Your task to perform on an android device: open app "PlayWell" Image 0: 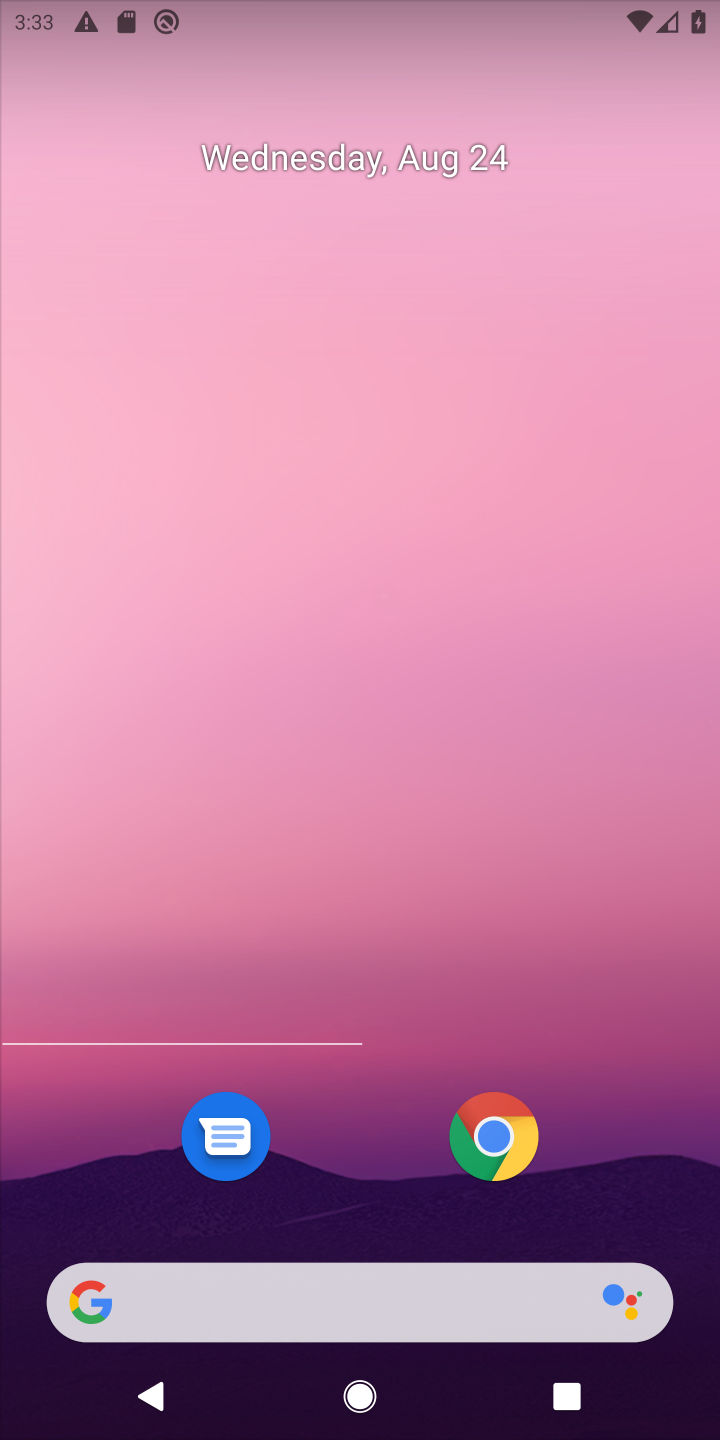
Step 0: press home button
Your task to perform on an android device: open app "PlayWell" Image 1: 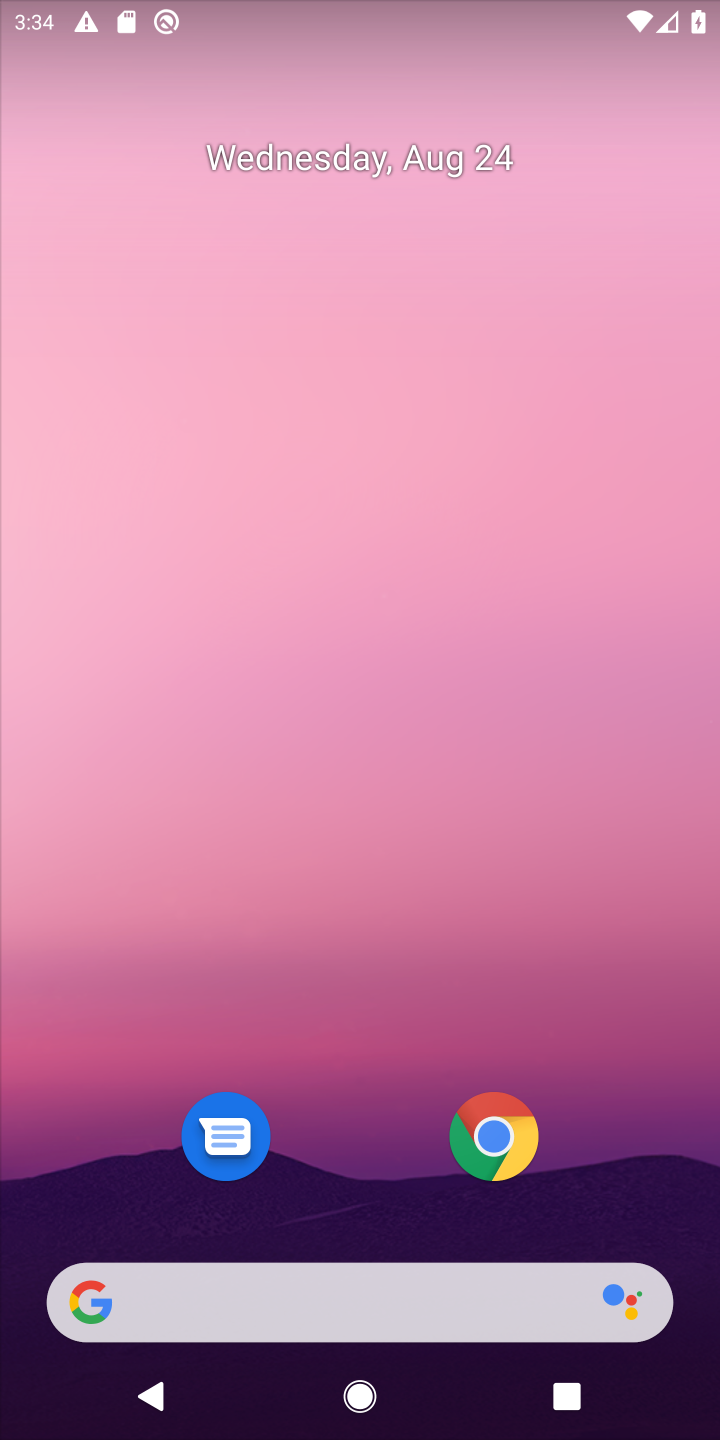
Step 1: drag from (338, 1191) to (313, 298)
Your task to perform on an android device: open app "PlayWell" Image 2: 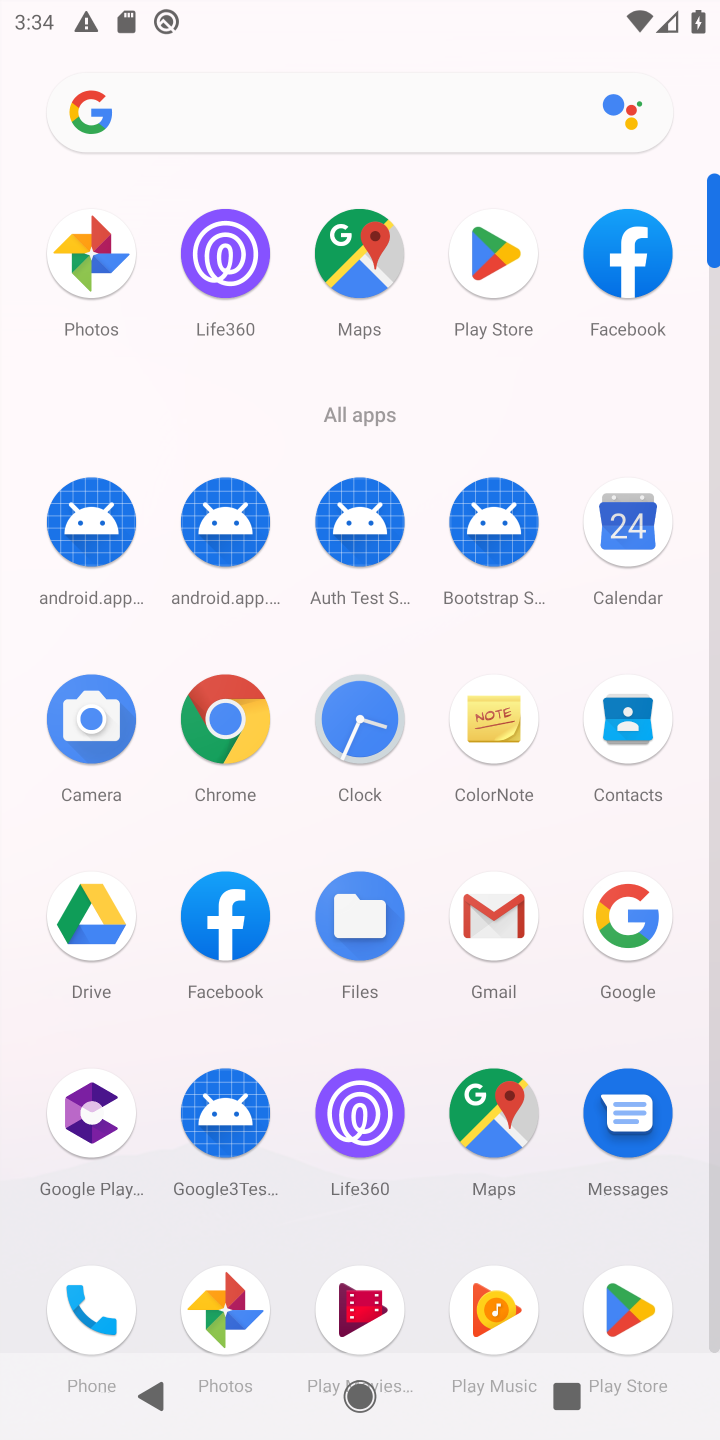
Step 2: click (481, 255)
Your task to perform on an android device: open app "PlayWell" Image 3: 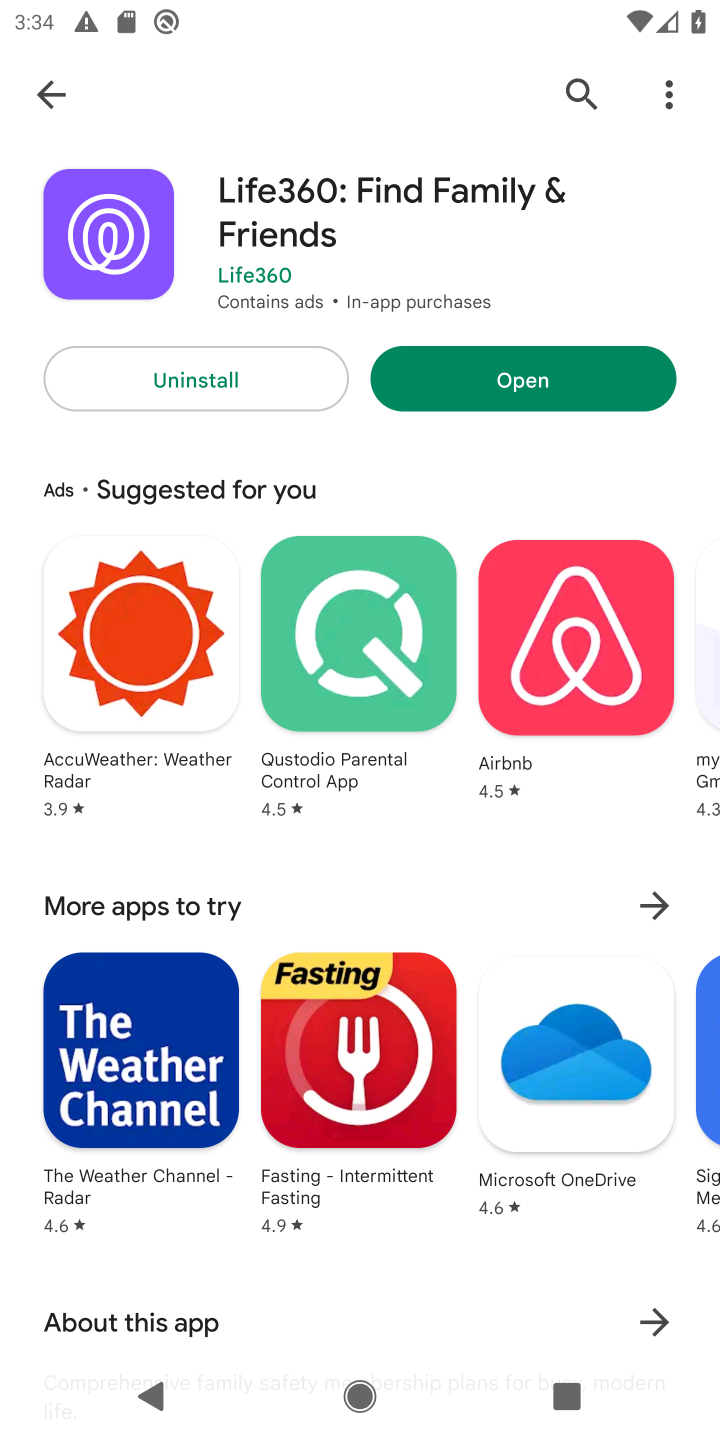
Step 3: click (59, 89)
Your task to perform on an android device: open app "PlayWell" Image 4: 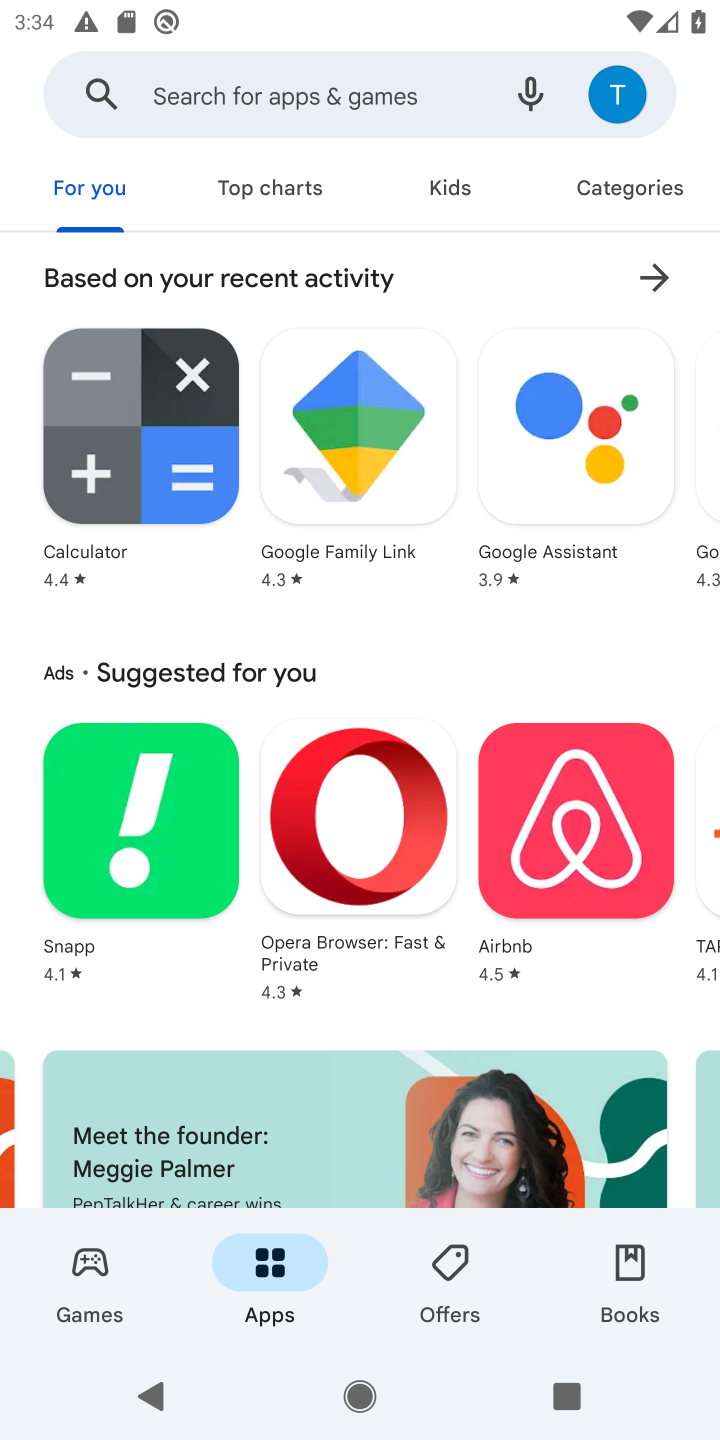
Step 4: click (336, 100)
Your task to perform on an android device: open app "PlayWell" Image 5: 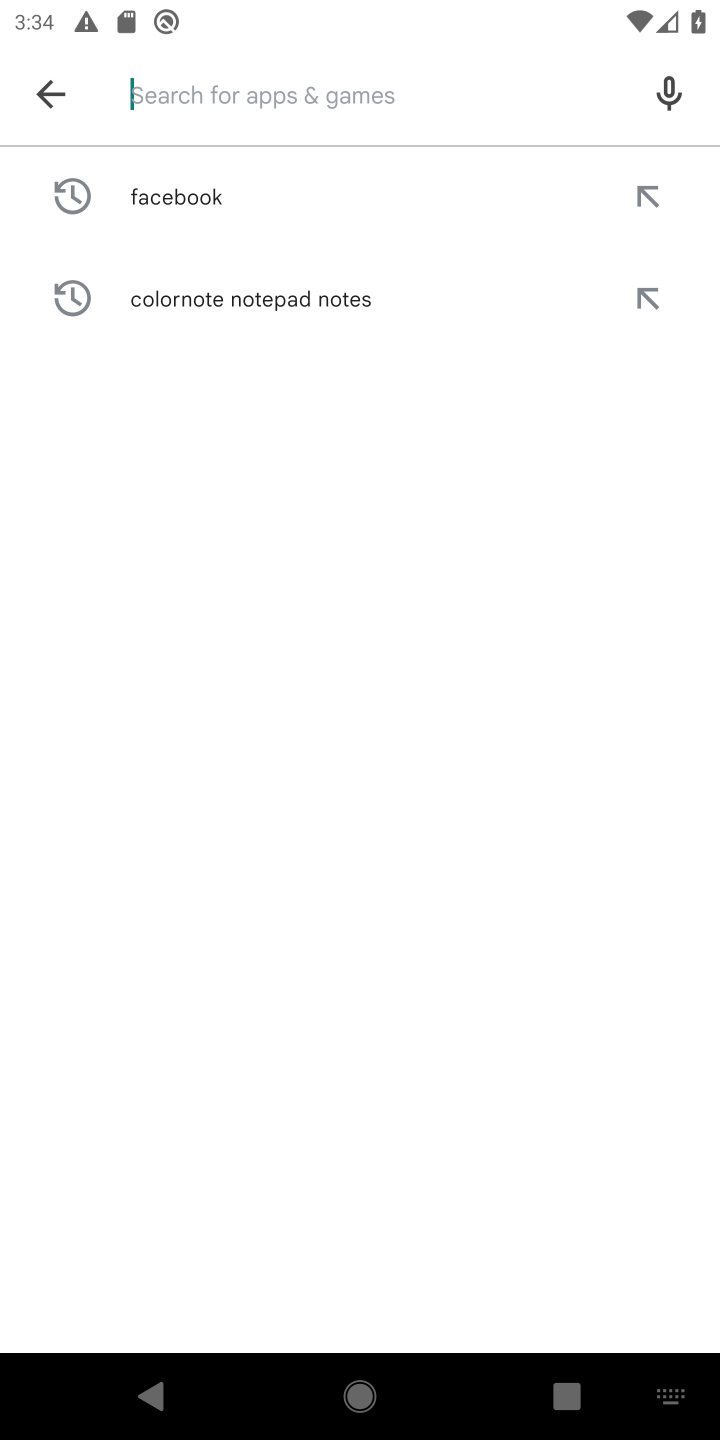
Step 5: type "PlayWell"
Your task to perform on an android device: open app "PlayWell" Image 6: 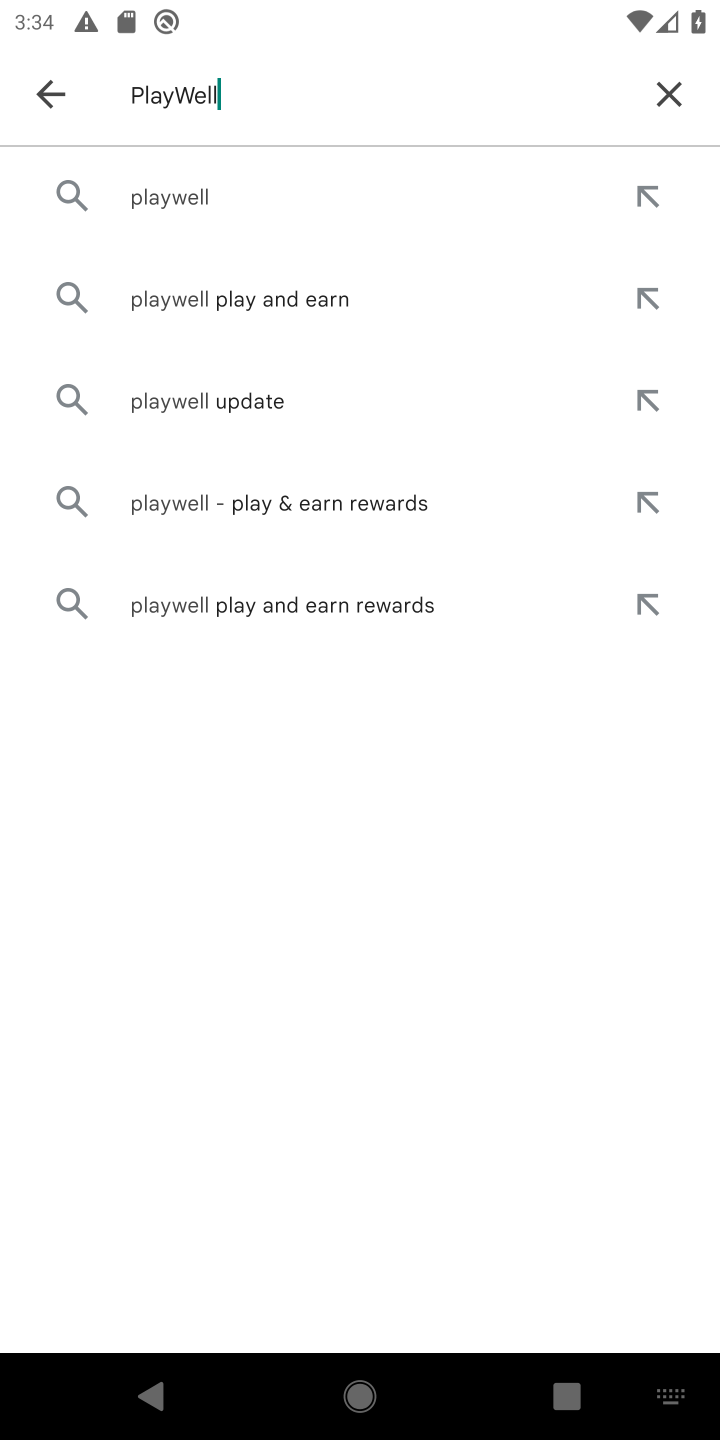
Step 6: click (175, 203)
Your task to perform on an android device: open app "PlayWell" Image 7: 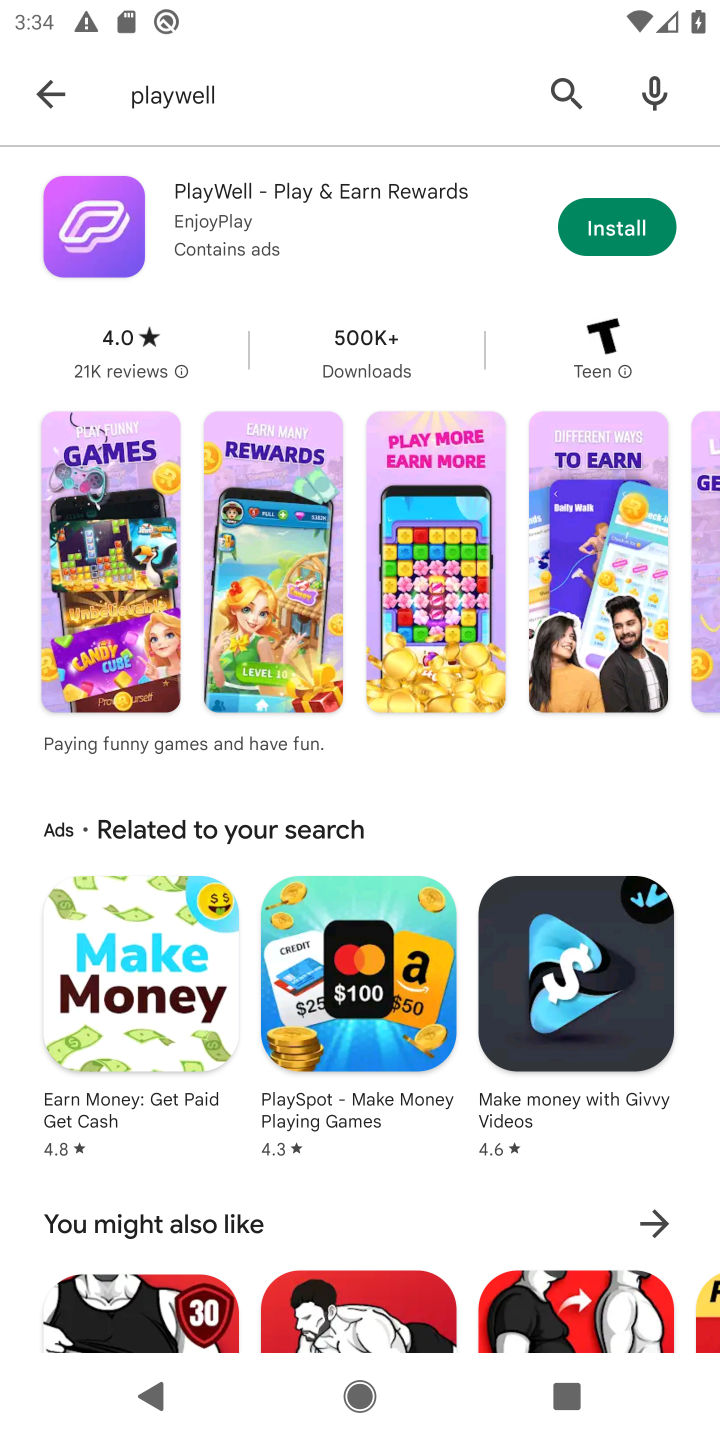
Step 7: click (606, 223)
Your task to perform on an android device: open app "PlayWell" Image 8: 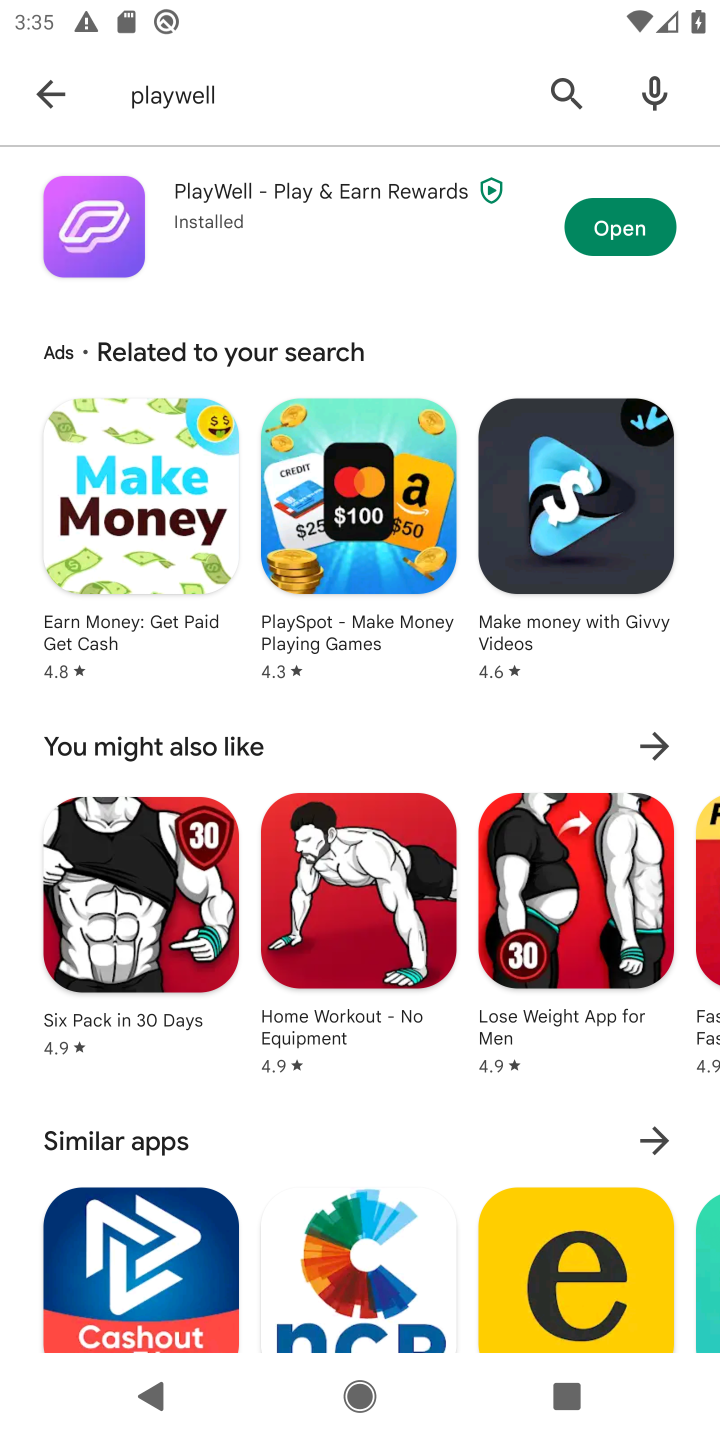
Step 8: click (610, 243)
Your task to perform on an android device: open app "PlayWell" Image 9: 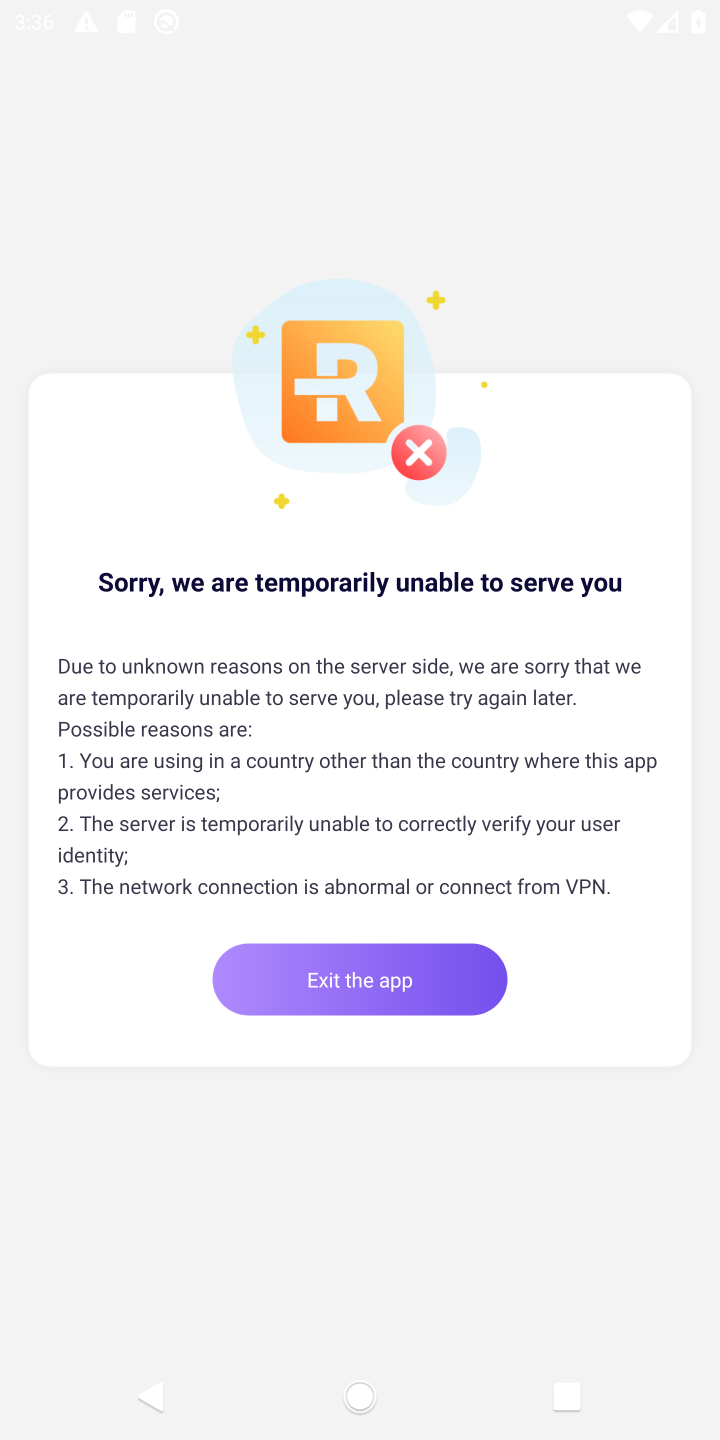
Step 9: task complete